Your task to perform on an android device: move an email to a new category in the gmail app Image 0: 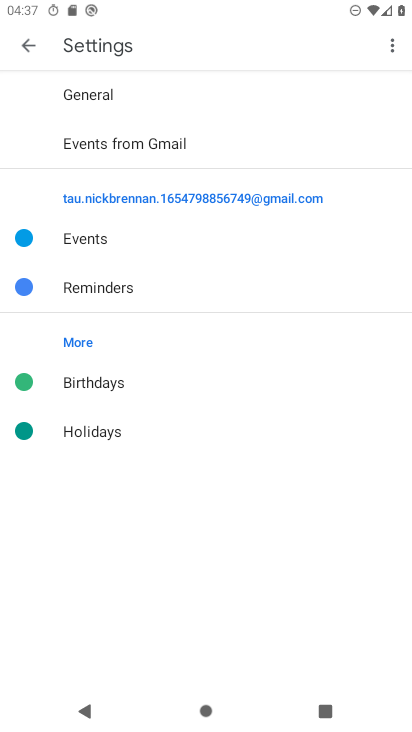
Step 0: press home button
Your task to perform on an android device: move an email to a new category in the gmail app Image 1: 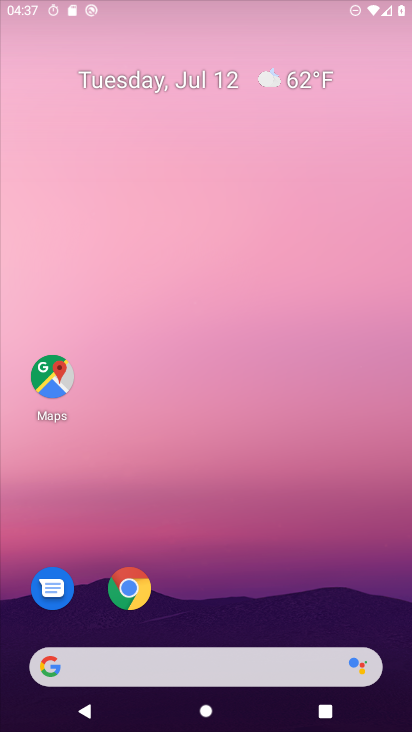
Step 1: drag from (211, 567) to (276, 0)
Your task to perform on an android device: move an email to a new category in the gmail app Image 2: 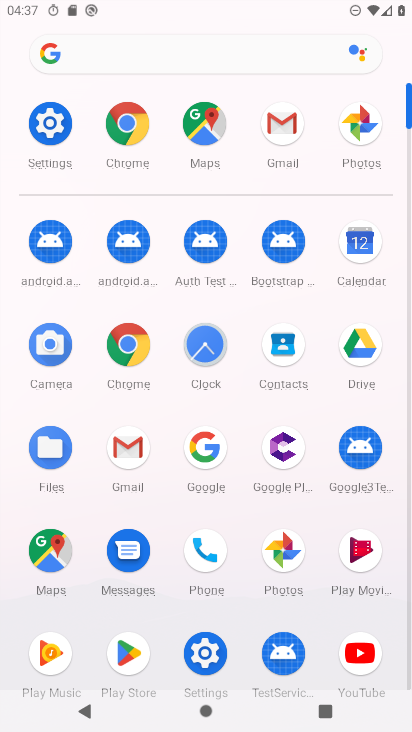
Step 2: click (129, 514)
Your task to perform on an android device: move an email to a new category in the gmail app Image 3: 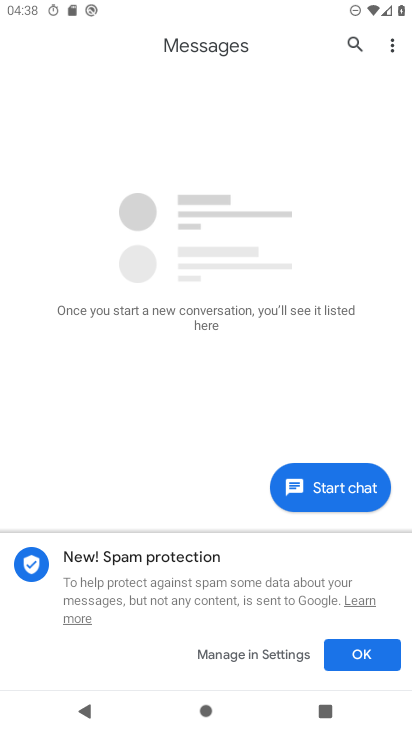
Step 3: press home button
Your task to perform on an android device: move an email to a new category in the gmail app Image 4: 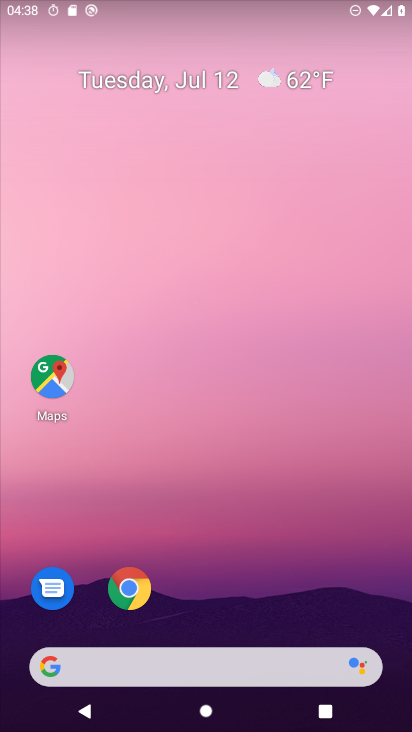
Step 4: drag from (203, 555) to (289, 33)
Your task to perform on an android device: move an email to a new category in the gmail app Image 5: 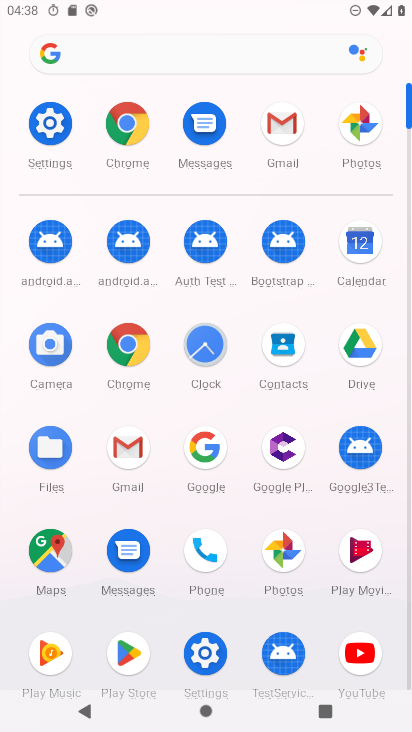
Step 5: click (118, 449)
Your task to perform on an android device: move an email to a new category in the gmail app Image 6: 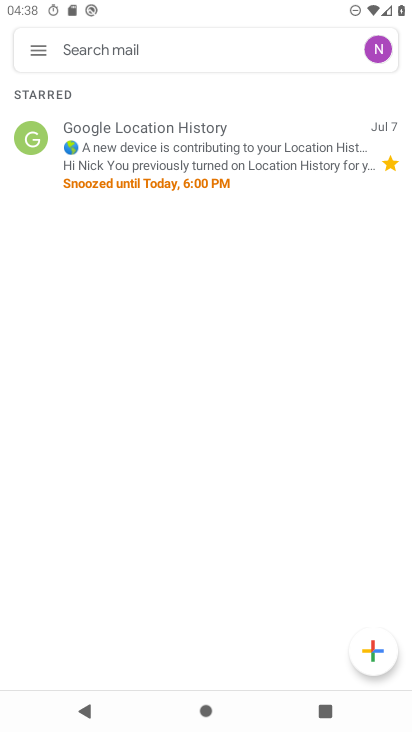
Step 6: click (28, 145)
Your task to perform on an android device: move an email to a new category in the gmail app Image 7: 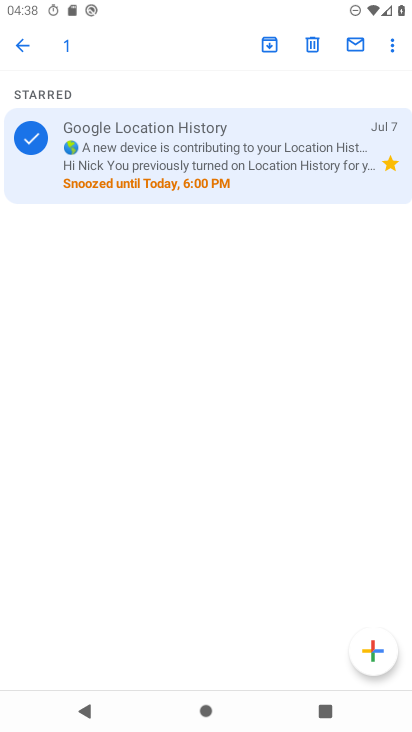
Step 7: click (392, 48)
Your task to perform on an android device: move an email to a new category in the gmail app Image 8: 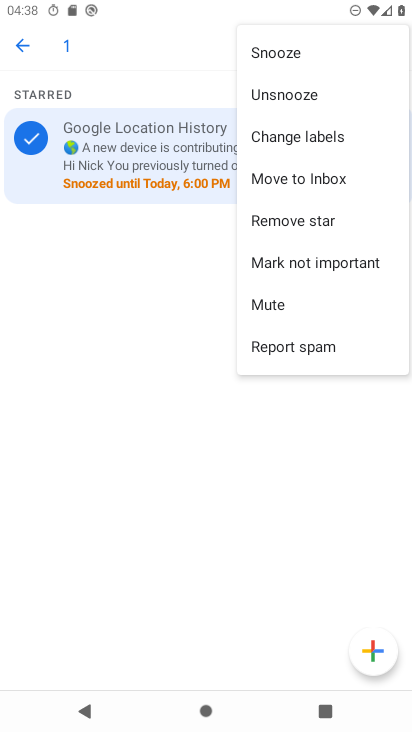
Step 8: click (296, 94)
Your task to perform on an android device: move an email to a new category in the gmail app Image 9: 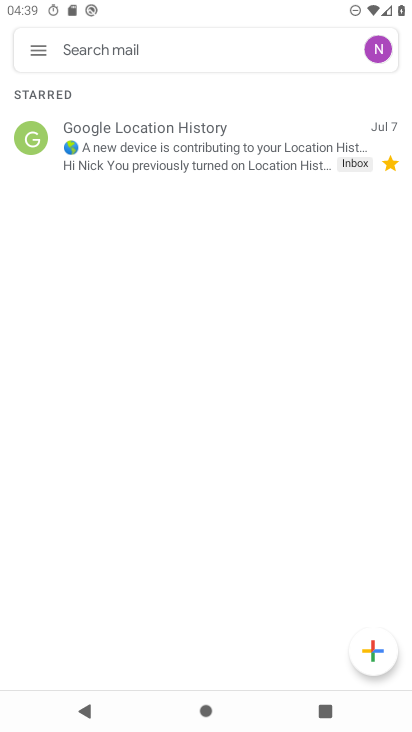
Step 9: task complete